Your task to perform on an android device: Open Google Image 0: 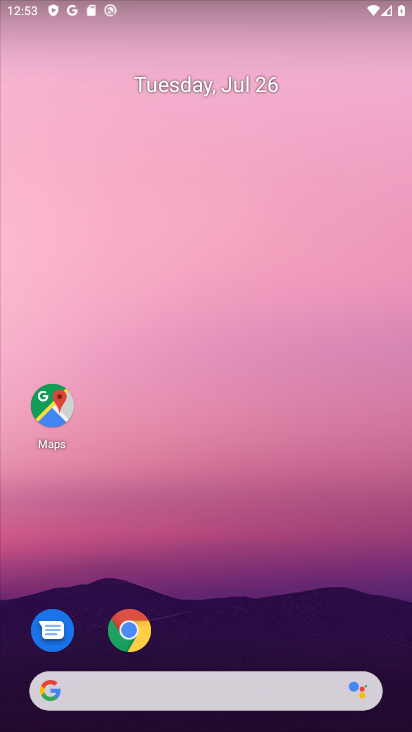
Step 0: drag from (226, 621) to (346, 73)
Your task to perform on an android device: Open Google Image 1: 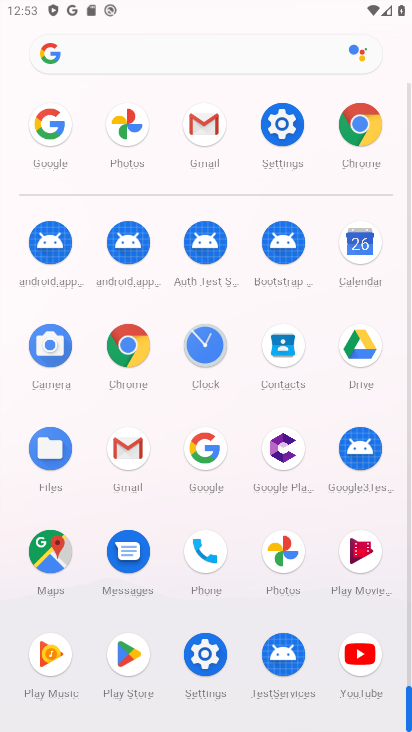
Step 1: click (199, 462)
Your task to perform on an android device: Open Google Image 2: 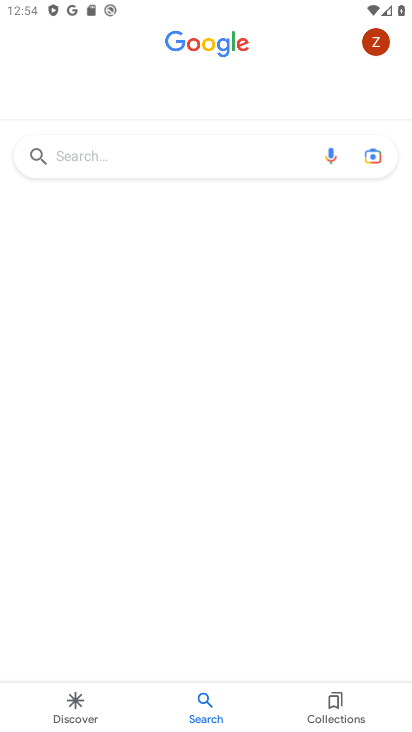
Step 2: task complete